Your task to perform on an android device: Open Maps and search for coffee Image 0: 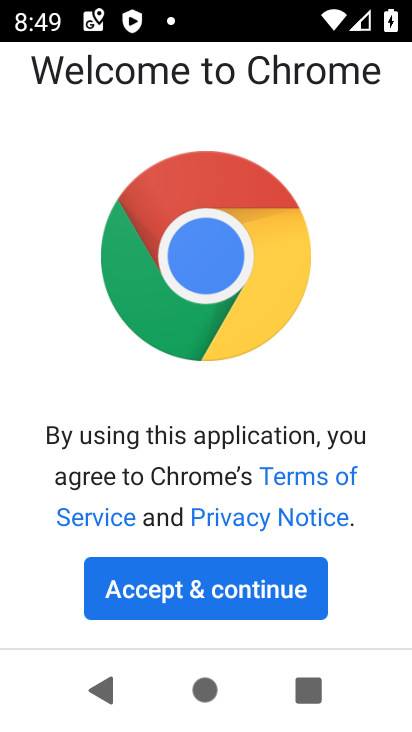
Step 0: press home button
Your task to perform on an android device: Open Maps and search for coffee Image 1: 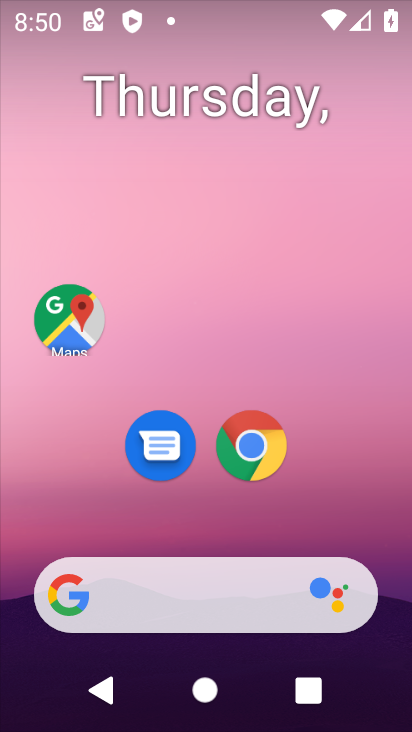
Step 1: click (70, 305)
Your task to perform on an android device: Open Maps and search for coffee Image 2: 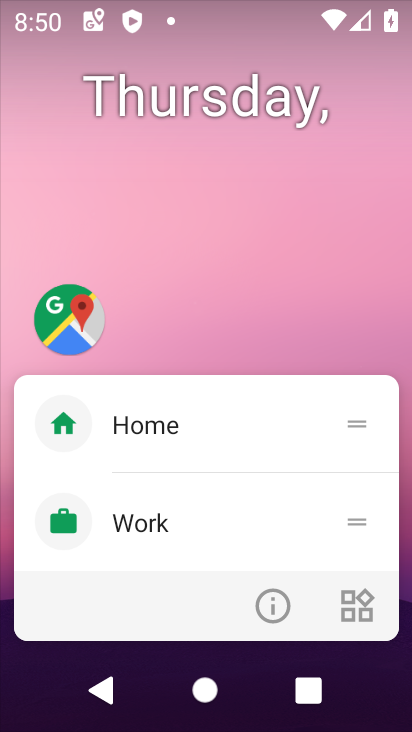
Step 2: click (75, 330)
Your task to perform on an android device: Open Maps and search for coffee Image 3: 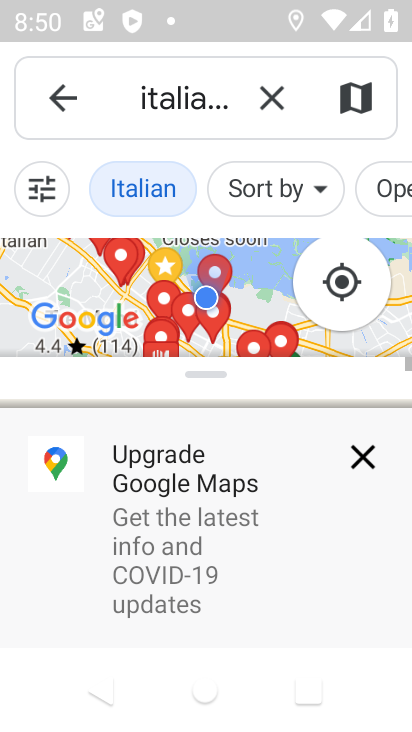
Step 3: click (270, 84)
Your task to perform on an android device: Open Maps and search for coffee Image 4: 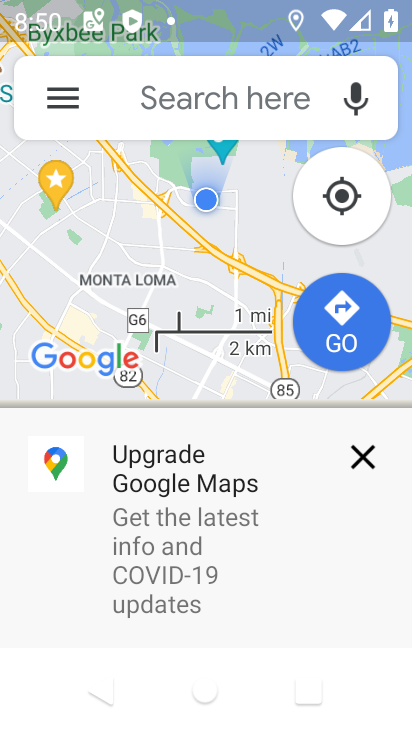
Step 4: click (190, 108)
Your task to perform on an android device: Open Maps and search for coffee Image 5: 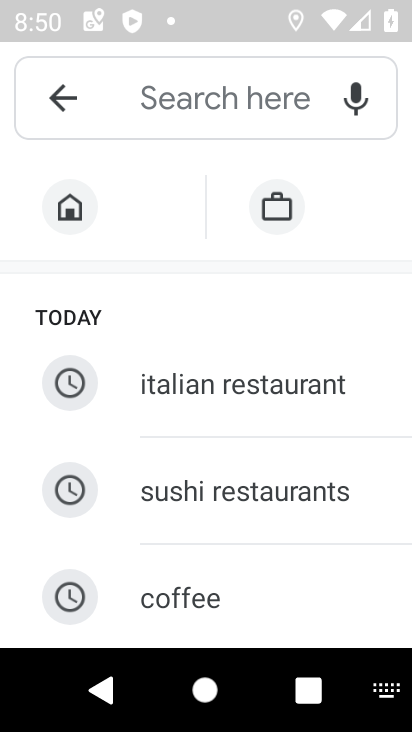
Step 5: type "coffee"
Your task to perform on an android device: Open Maps and search for coffee Image 6: 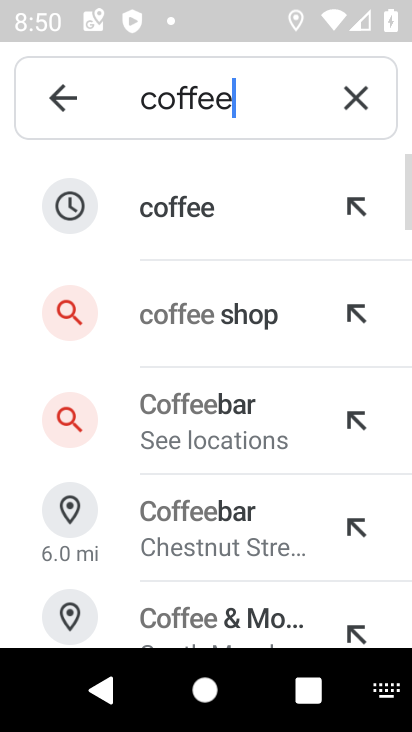
Step 6: click (236, 215)
Your task to perform on an android device: Open Maps and search for coffee Image 7: 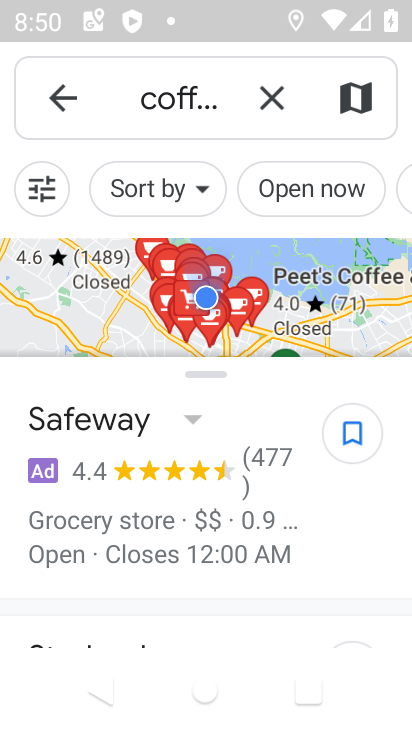
Step 7: task complete